Your task to perform on an android device: Open Google Chrome and click the shortcut for Amazon.com Image 0: 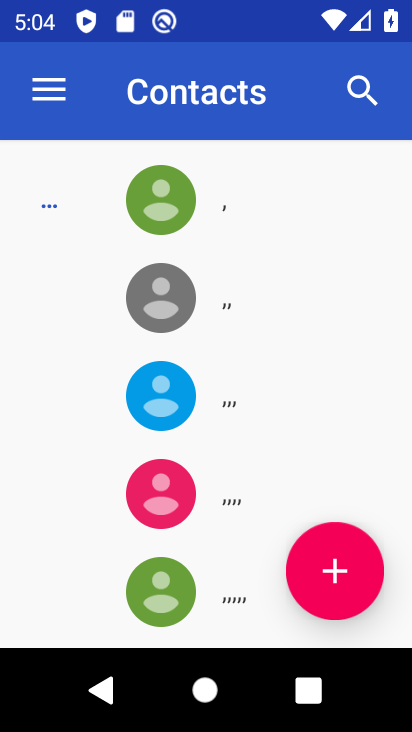
Step 0: press home button
Your task to perform on an android device: Open Google Chrome and click the shortcut for Amazon.com Image 1: 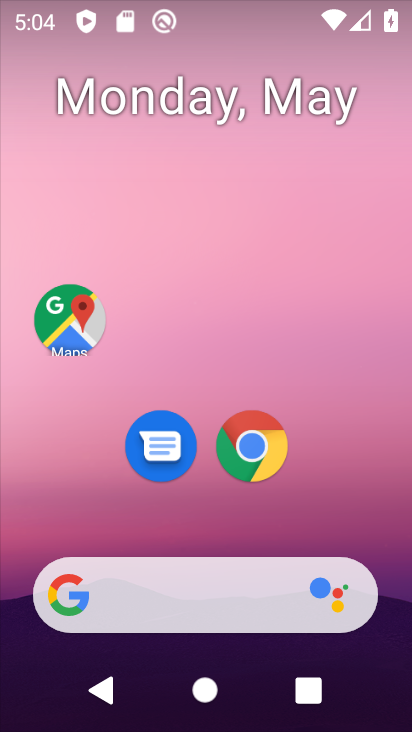
Step 1: click (253, 451)
Your task to perform on an android device: Open Google Chrome and click the shortcut for Amazon.com Image 2: 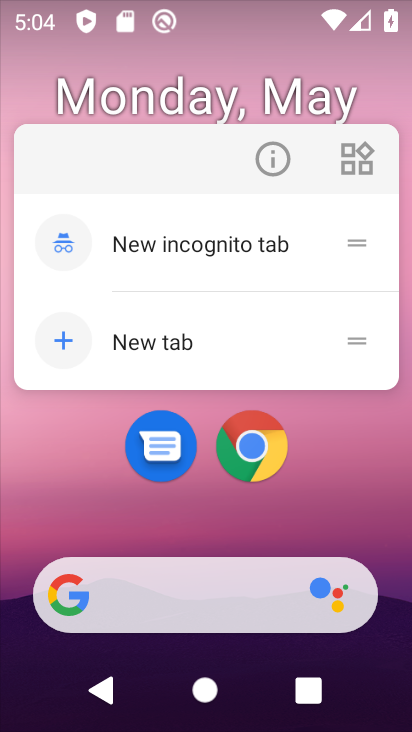
Step 2: click (253, 451)
Your task to perform on an android device: Open Google Chrome and click the shortcut for Amazon.com Image 3: 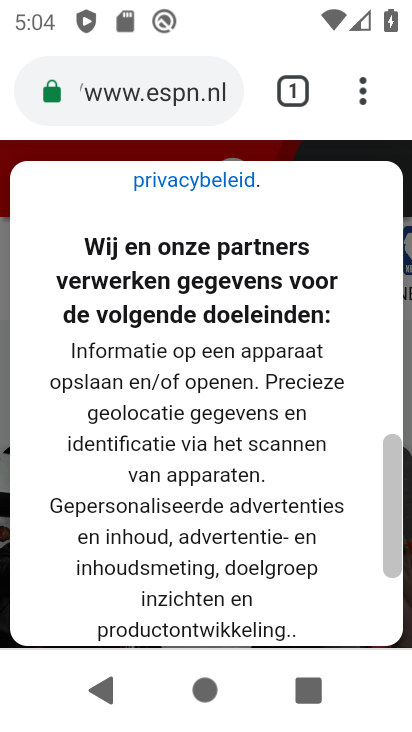
Step 3: click (367, 89)
Your task to perform on an android device: Open Google Chrome and click the shortcut for Amazon.com Image 4: 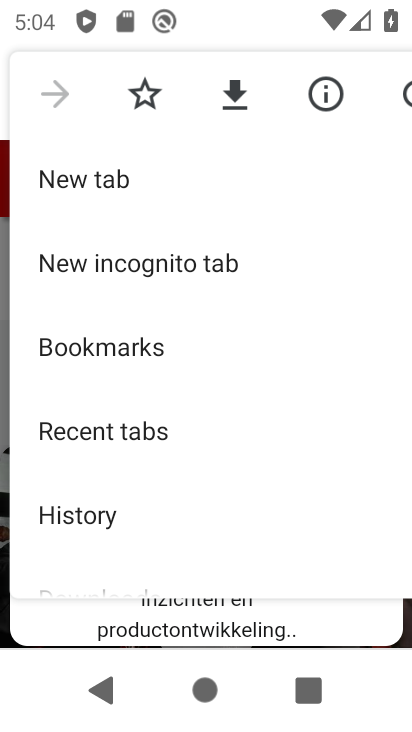
Step 4: click (109, 173)
Your task to perform on an android device: Open Google Chrome and click the shortcut for Amazon.com Image 5: 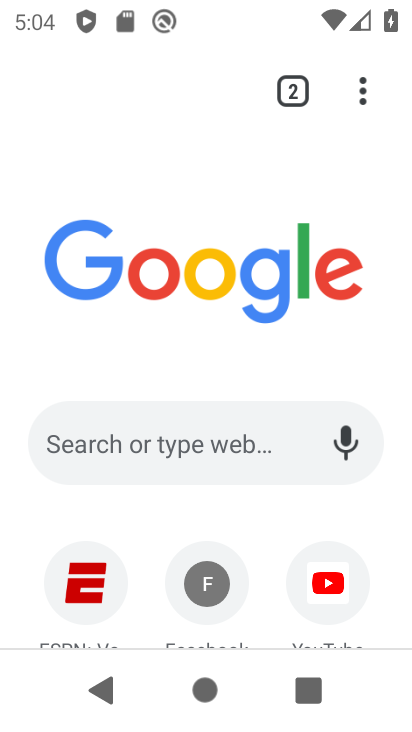
Step 5: drag from (240, 498) to (151, 168)
Your task to perform on an android device: Open Google Chrome and click the shortcut for Amazon.com Image 6: 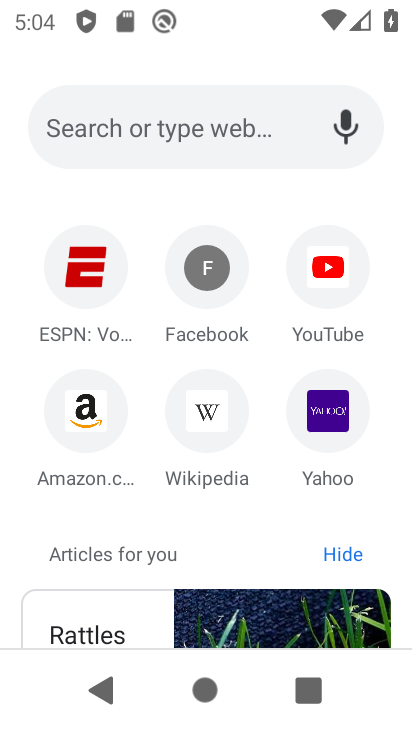
Step 6: click (83, 410)
Your task to perform on an android device: Open Google Chrome and click the shortcut for Amazon.com Image 7: 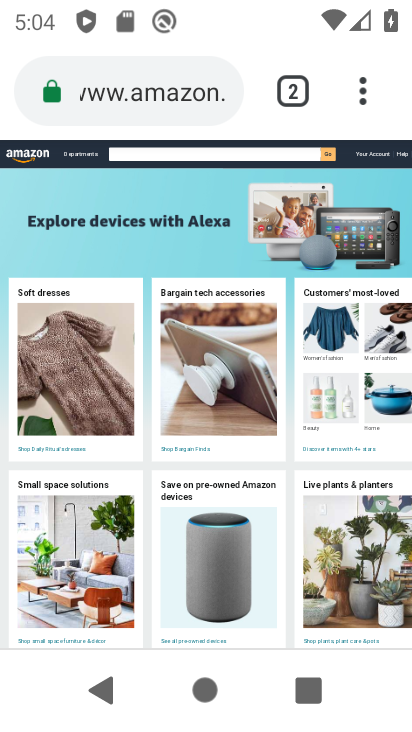
Step 7: task complete